Your task to perform on an android device: Open Android settings Image 0: 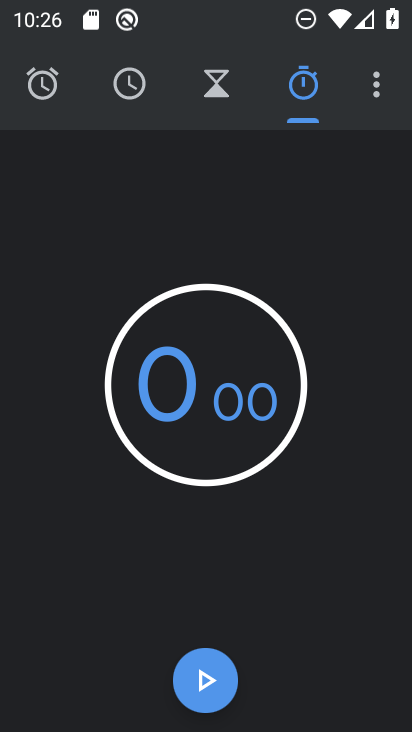
Step 0: press home button
Your task to perform on an android device: Open Android settings Image 1: 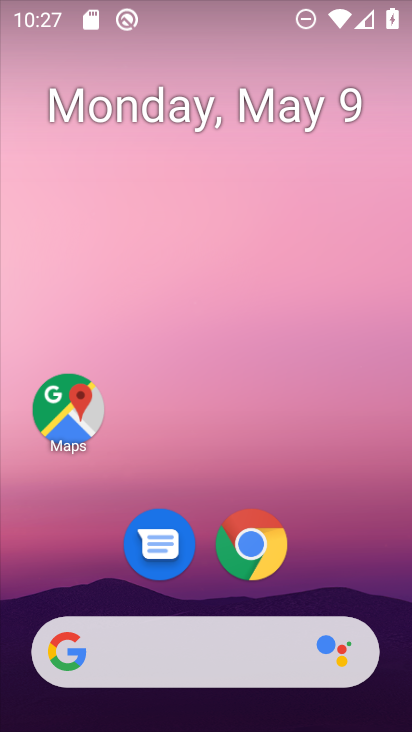
Step 1: drag from (333, 576) to (149, 56)
Your task to perform on an android device: Open Android settings Image 2: 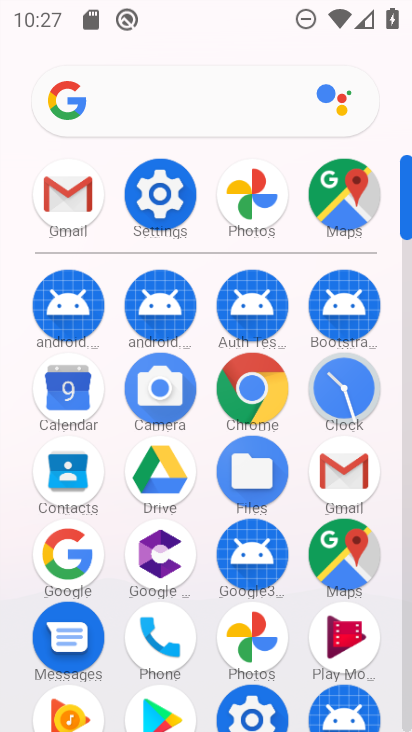
Step 2: click (160, 197)
Your task to perform on an android device: Open Android settings Image 3: 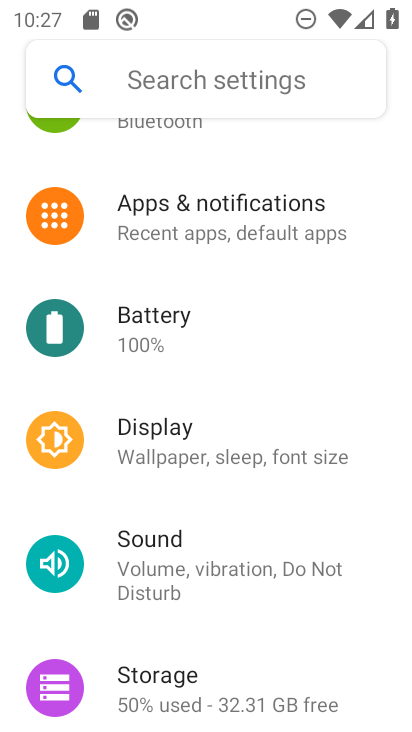
Step 3: task complete